Your task to perform on an android device: turn notification dots on Image 0: 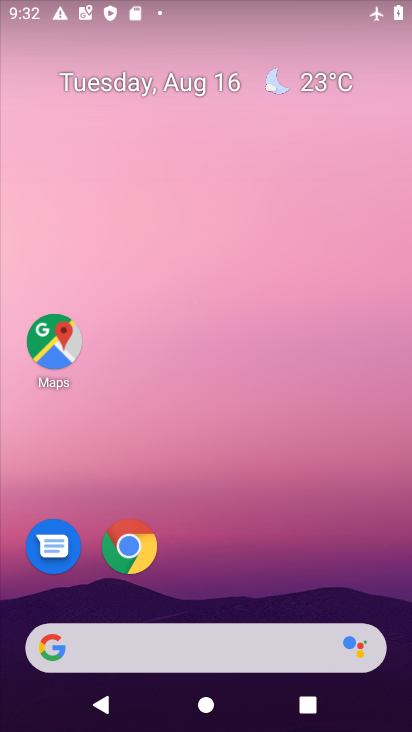
Step 0: drag from (236, 473) to (208, 0)
Your task to perform on an android device: turn notification dots on Image 1: 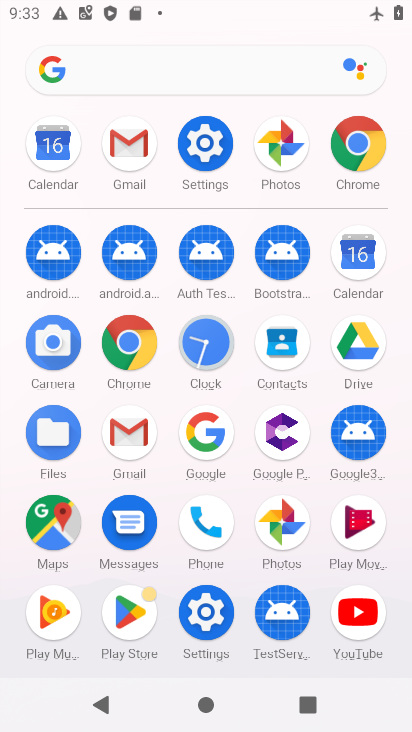
Step 1: click (205, 137)
Your task to perform on an android device: turn notification dots on Image 2: 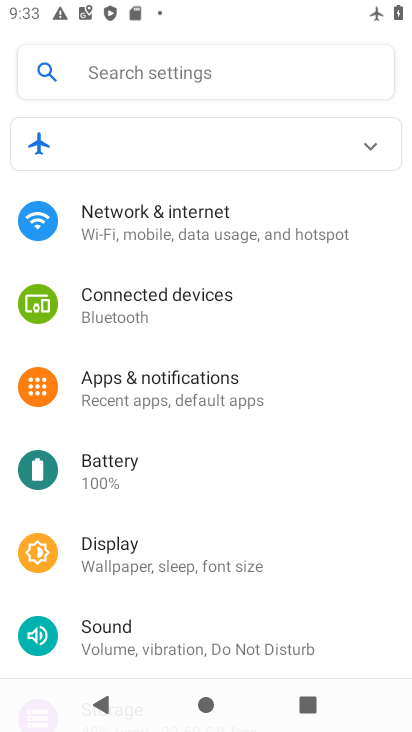
Step 2: click (202, 381)
Your task to perform on an android device: turn notification dots on Image 3: 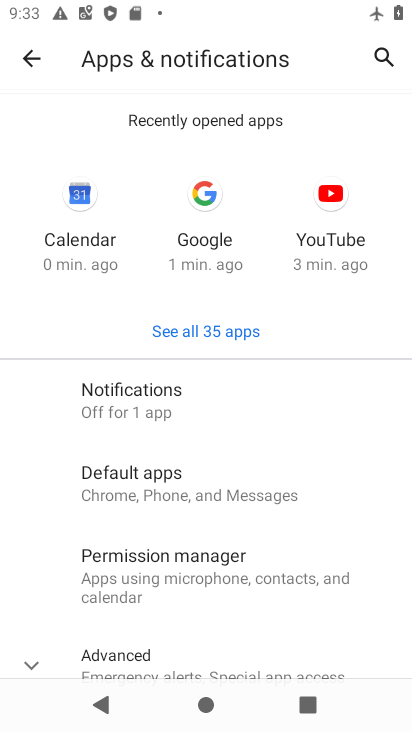
Step 3: click (28, 664)
Your task to perform on an android device: turn notification dots on Image 4: 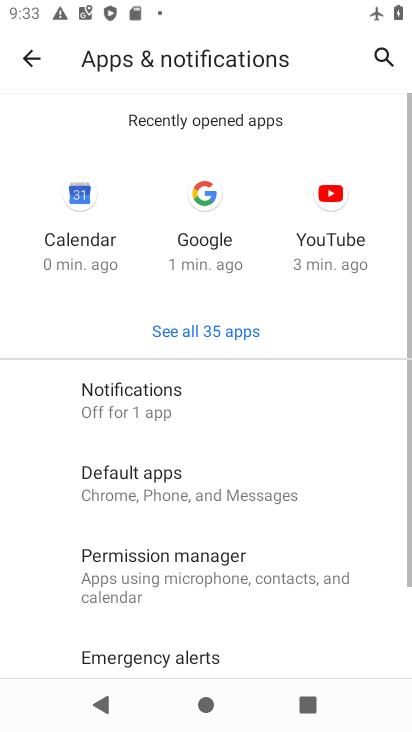
Step 4: click (153, 408)
Your task to perform on an android device: turn notification dots on Image 5: 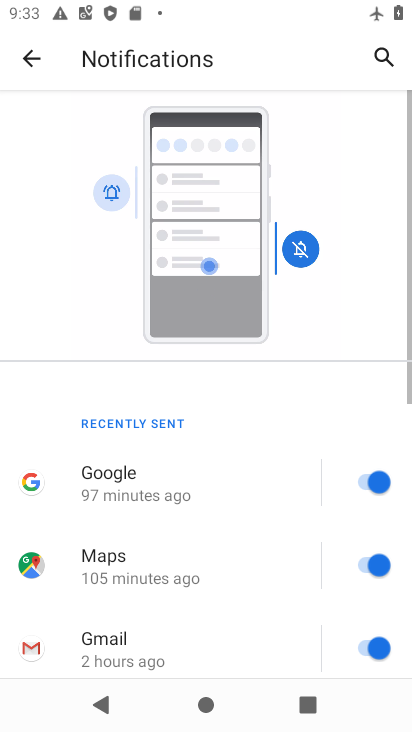
Step 5: drag from (188, 563) to (230, 20)
Your task to perform on an android device: turn notification dots on Image 6: 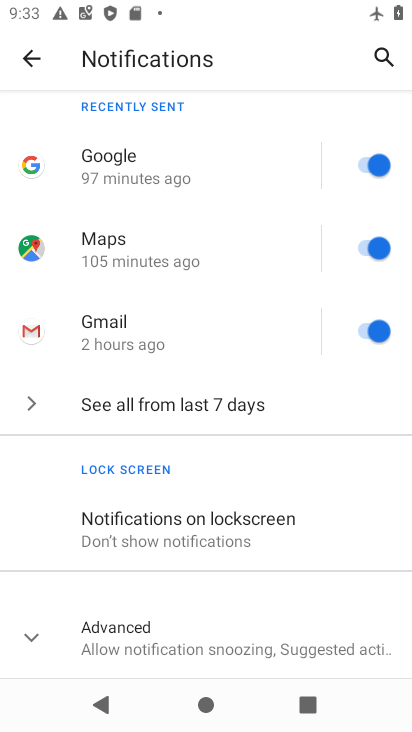
Step 6: click (36, 635)
Your task to perform on an android device: turn notification dots on Image 7: 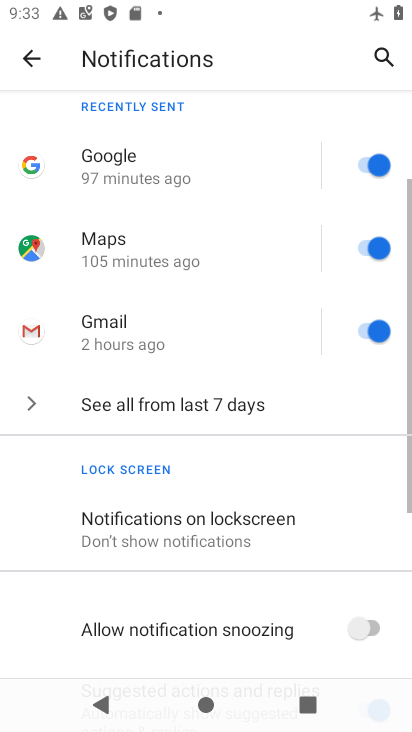
Step 7: task complete